Your task to perform on an android device: Search for Italian restaurants on Maps Image 0: 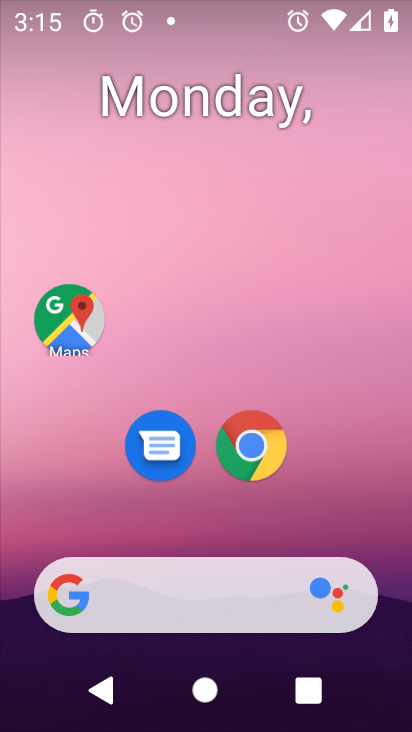
Step 0: click (75, 335)
Your task to perform on an android device: Search for Italian restaurants on Maps Image 1: 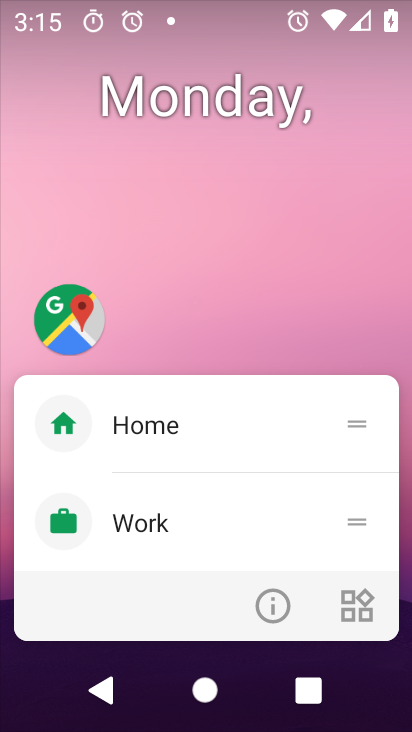
Step 1: click (75, 335)
Your task to perform on an android device: Search for Italian restaurants on Maps Image 2: 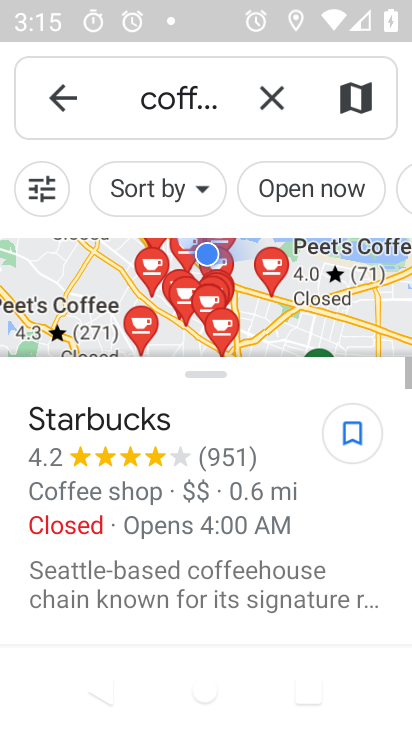
Step 2: click (276, 108)
Your task to perform on an android device: Search for Italian restaurants on Maps Image 3: 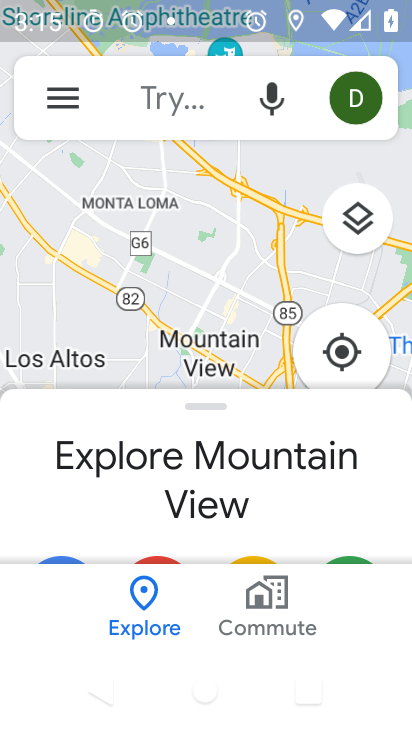
Step 3: click (211, 110)
Your task to perform on an android device: Search for Italian restaurants on Maps Image 4: 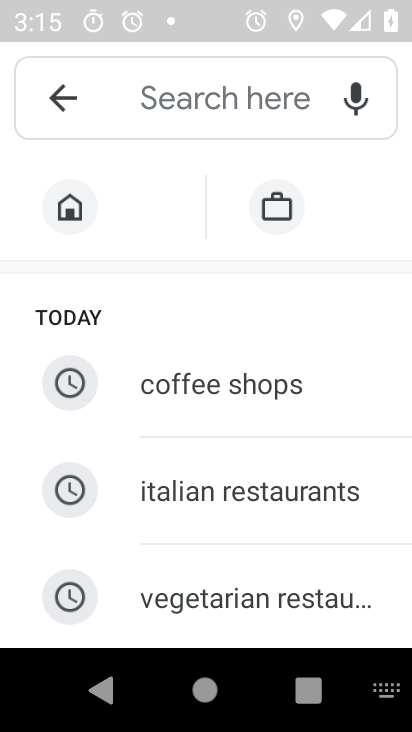
Step 4: click (238, 518)
Your task to perform on an android device: Search for Italian restaurants on Maps Image 5: 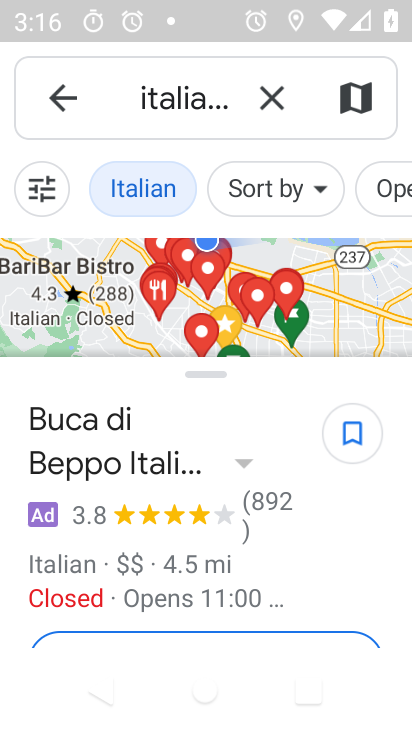
Step 5: task complete